Your task to perform on an android device: Open the map Image 0: 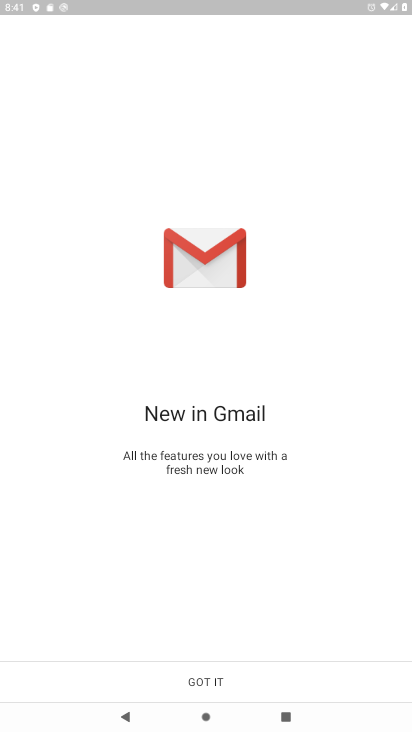
Step 0: press home button
Your task to perform on an android device: Open the map Image 1: 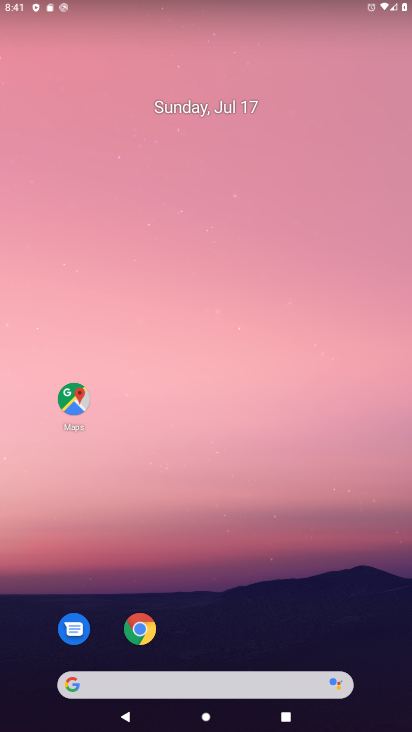
Step 1: click (64, 397)
Your task to perform on an android device: Open the map Image 2: 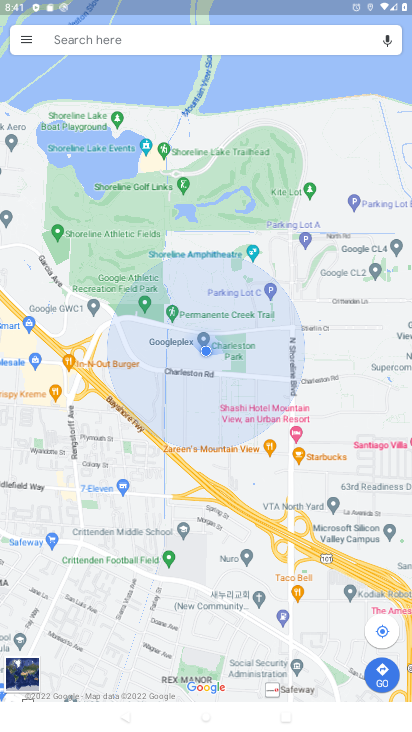
Step 2: task complete